Your task to perform on an android device: Open Reddit.com Image 0: 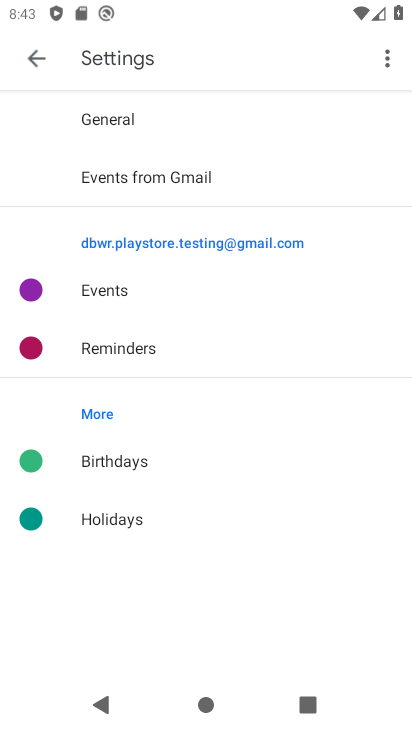
Step 0: press home button
Your task to perform on an android device: Open Reddit.com Image 1: 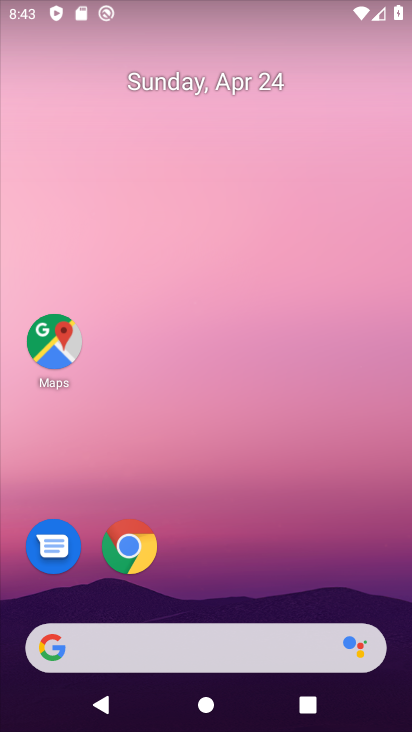
Step 1: click (119, 528)
Your task to perform on an android device: Open Reddit.com Image 2: 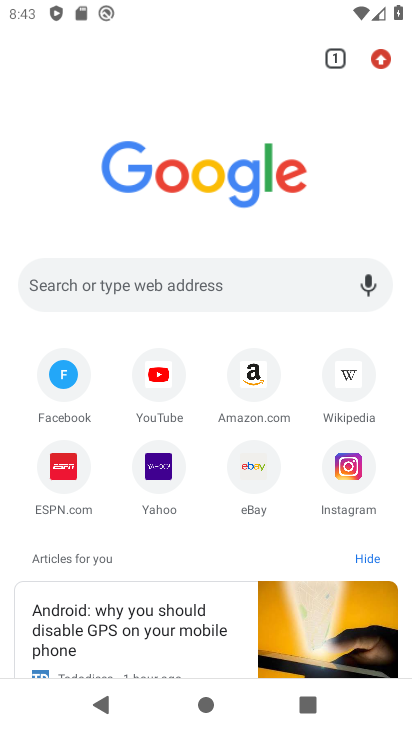
Step 2: click (175, 298)
Your task to perform on an android device: Open Reddit.com Image 3: 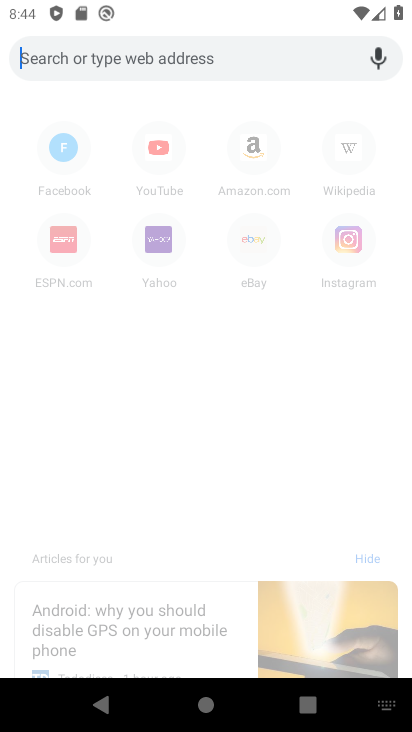
Step 3: type "reddit"
Your task to perform on an android device: Open Reddit.com Image 4: 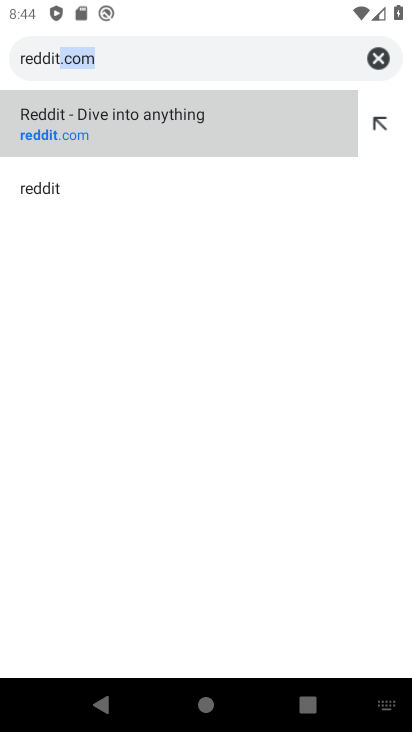
Step 4: click (80, 127)
Your task to perform on an android device: Open Reddit.com Image 5: 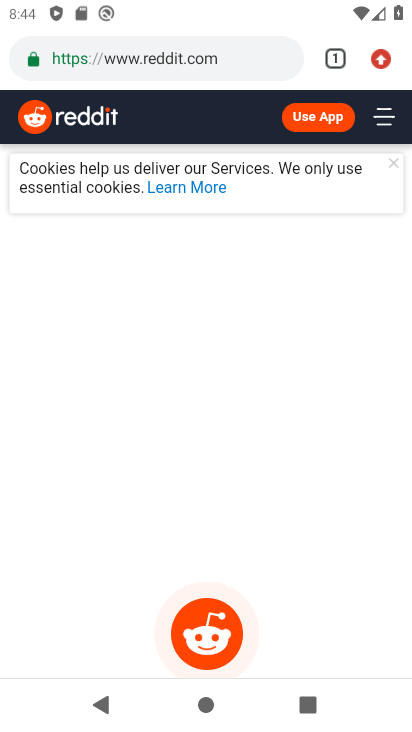
Step 5: task complete